Your task to perform on an android device: open device folders in google photos Image 0: 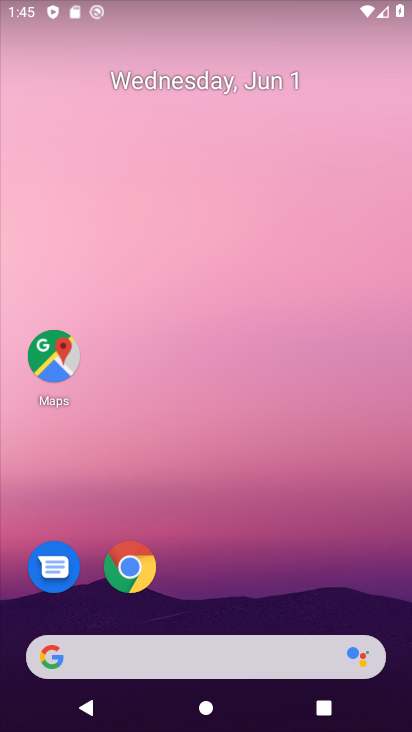
Step 0: drag from (265, 495) to (230, 214)
Your task to perform on an android device: open device folders in google photos Image 1: 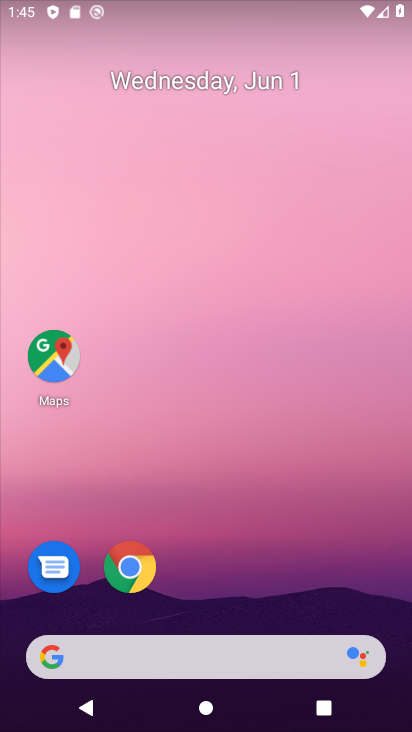
Step 1: drag from (215, 455) to (134, 54)
Your task to perform on an android device: open device folders in google photos Image 2: 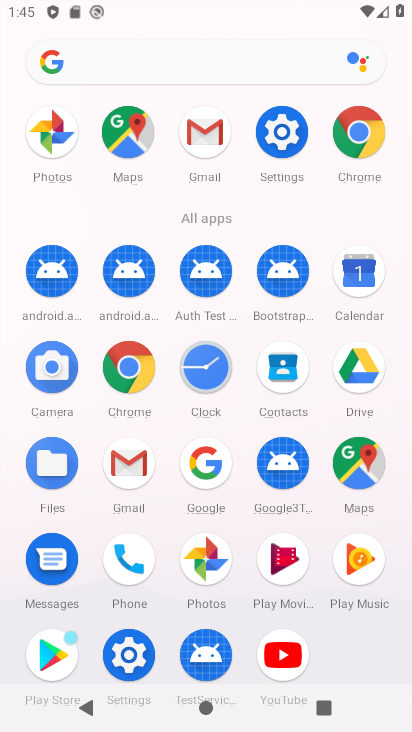
Step 2: click (51, 127)
Your task to perform on an android device: open device folders in google photos Image 3: 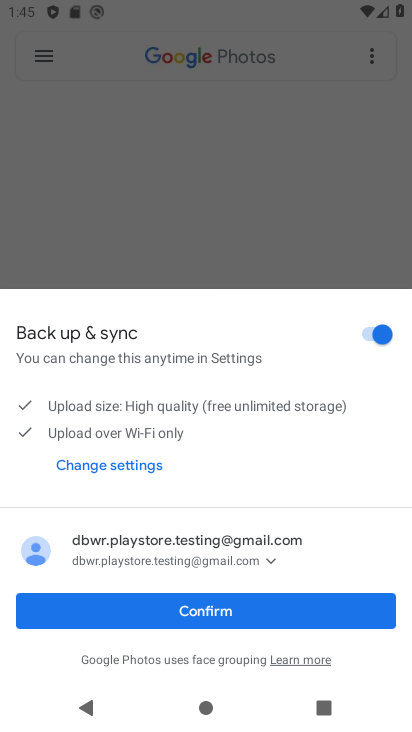
Step 3: click (216, 603)
Your task to perform on an android device: open device folders in google photos Image 4: 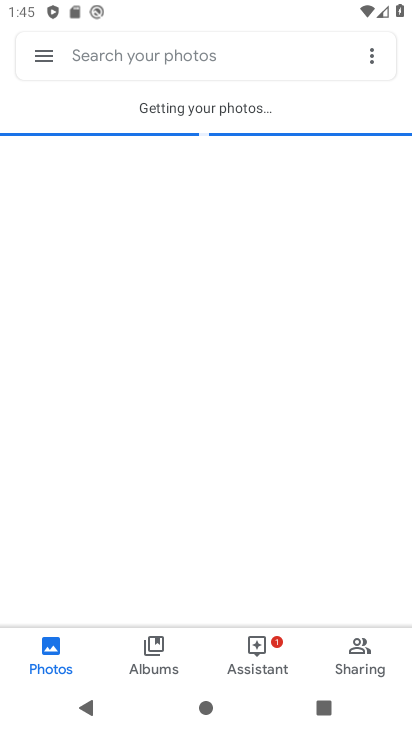
Step 4: click (216, 603)
Your task to perform on an android device: open device folders in google photos Image 5: 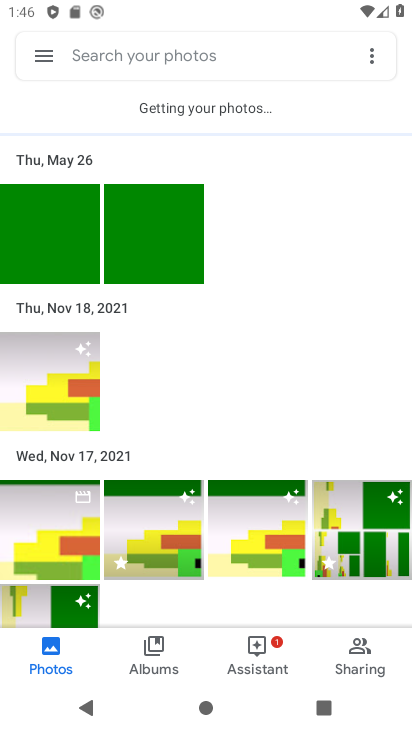
Step 5: click (39, 46)
Your task to perform on an android device: open device folders in google photos Image 6: 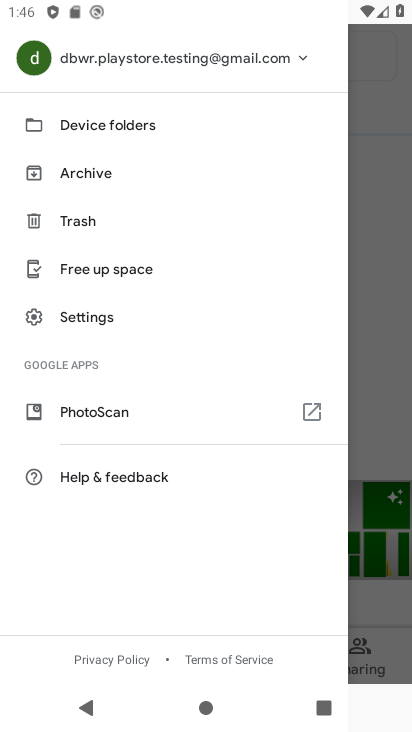
Step 6: click (97, 124)
Your task to perform on an android device: open device folders in google photos Image 7: 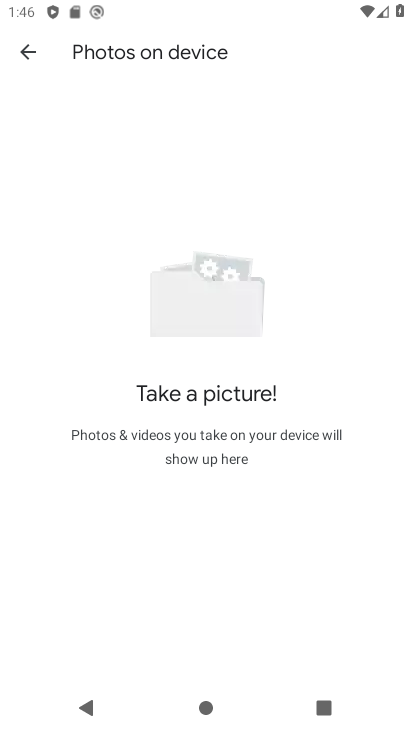
Step 7: task complete